Your task to perform on an android device: Go to ESPN.com Image 0: 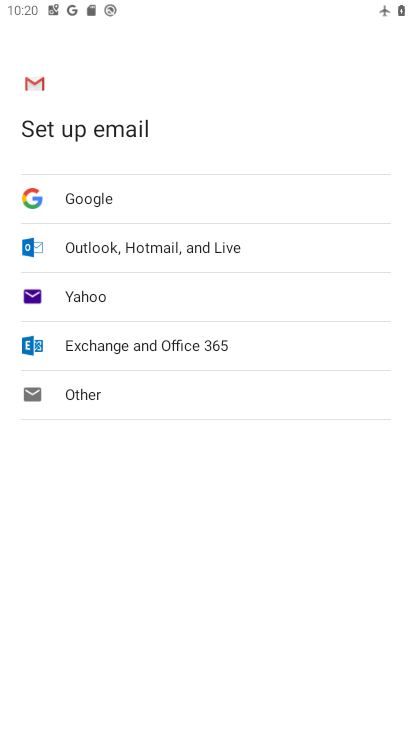
Step 0: press home button
Your task to perform on an android device: Go to ESPN.com Image 1: 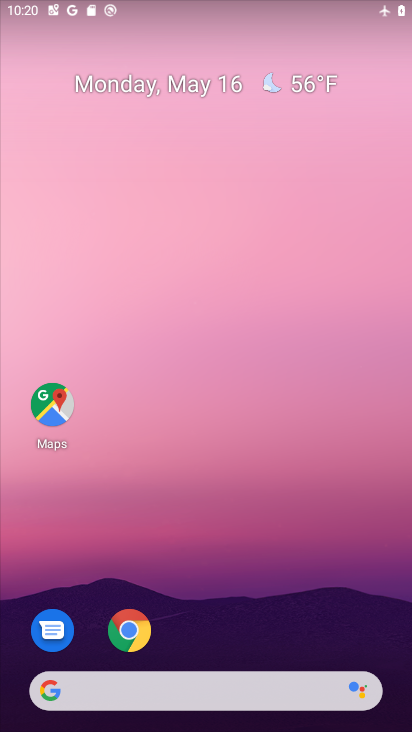
Step 1: click (258, 697)
Your task to perform on an android device: Go to ESPN.com Image 2: 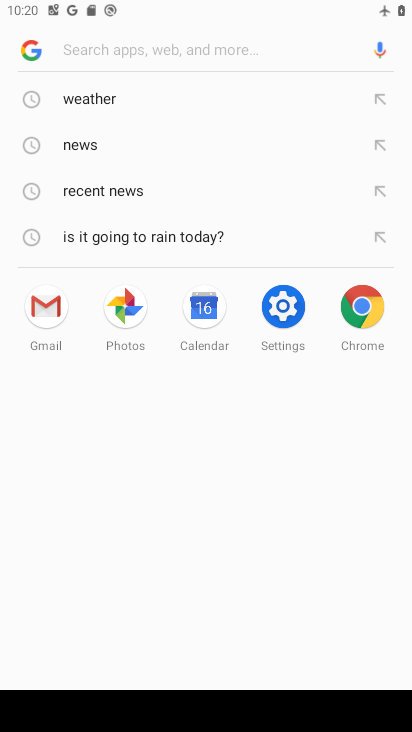
Step 2: type "espn.com"
Your task to perform on an android device: Go to ESPN.com Image 3: 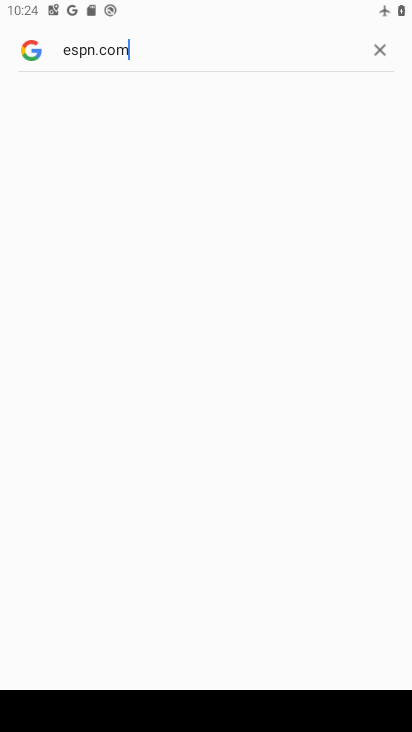
Step 3: task complete